Your task to perform on an android device: set an alarm Image 0: 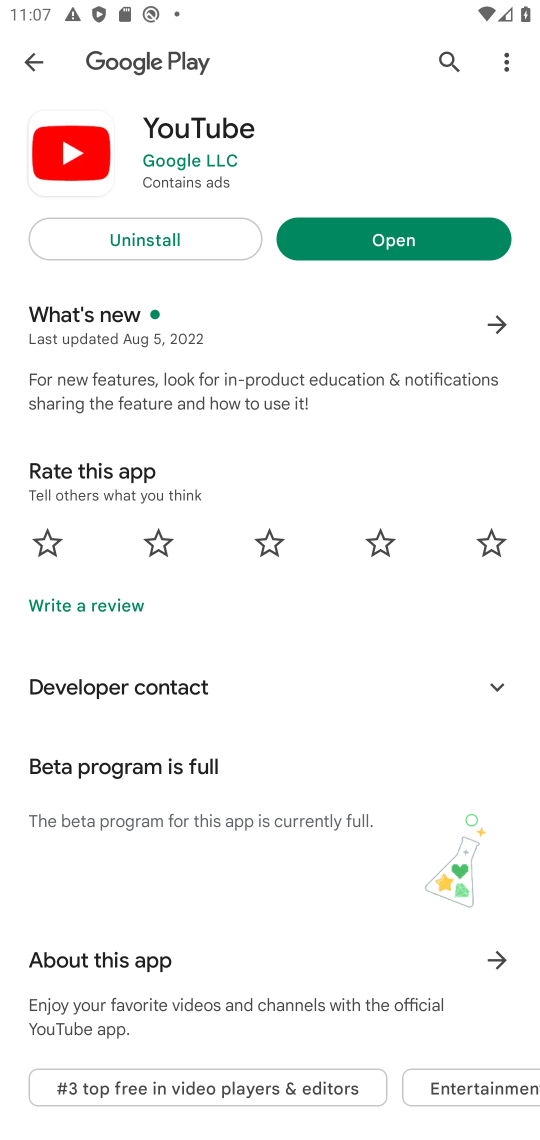
Step 0: press home button
Your task to perform on an android device: set an alarm Image 1: 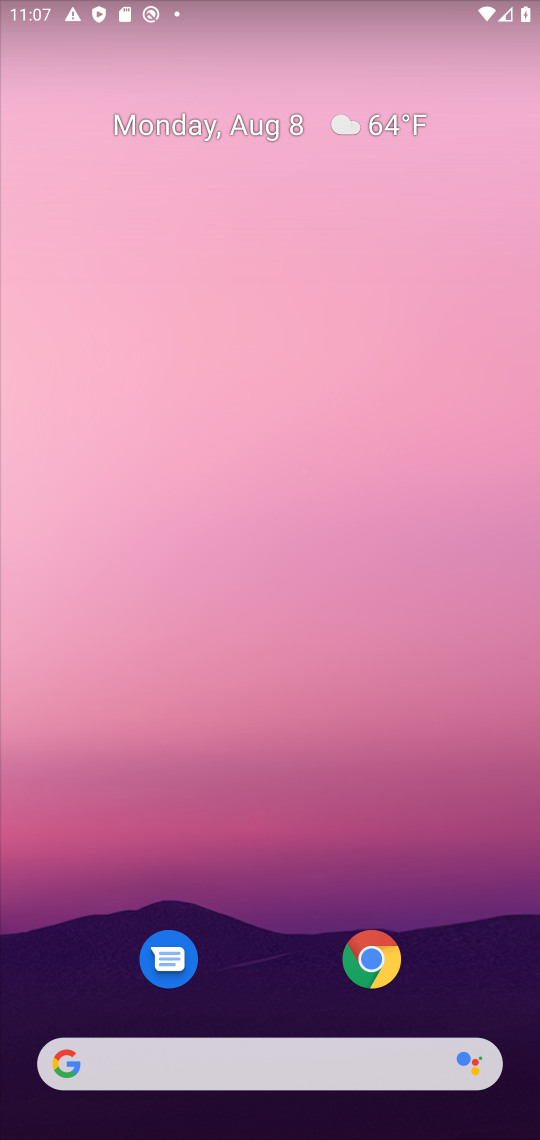
Step 1: drag from (465, 959) to (399, 662)
Your task to perform on an android device: set an alarm Image 2: 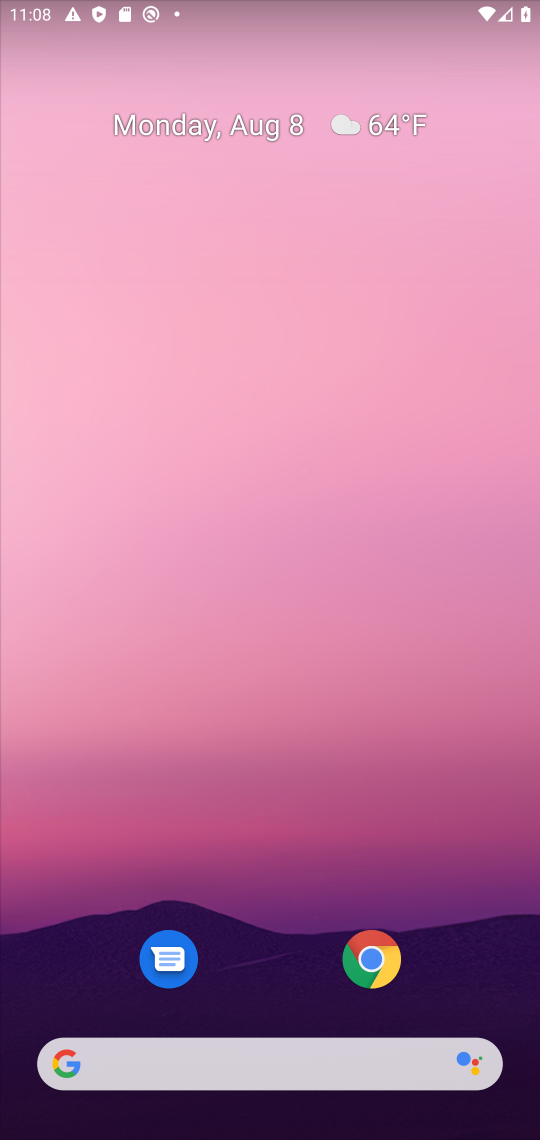
Step 2: drag from (466, 972) to (288, 251)
Your task to perform on an android device: set an alarm Image 3: 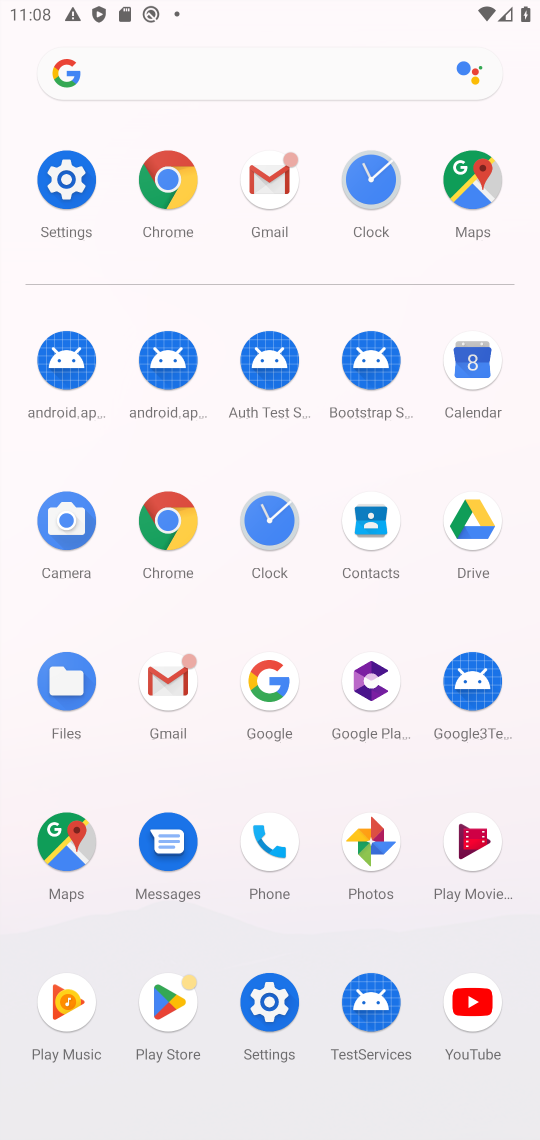
Step 3: click (290, 506)
Your task to perform on an android device: set an alarm Image 4: 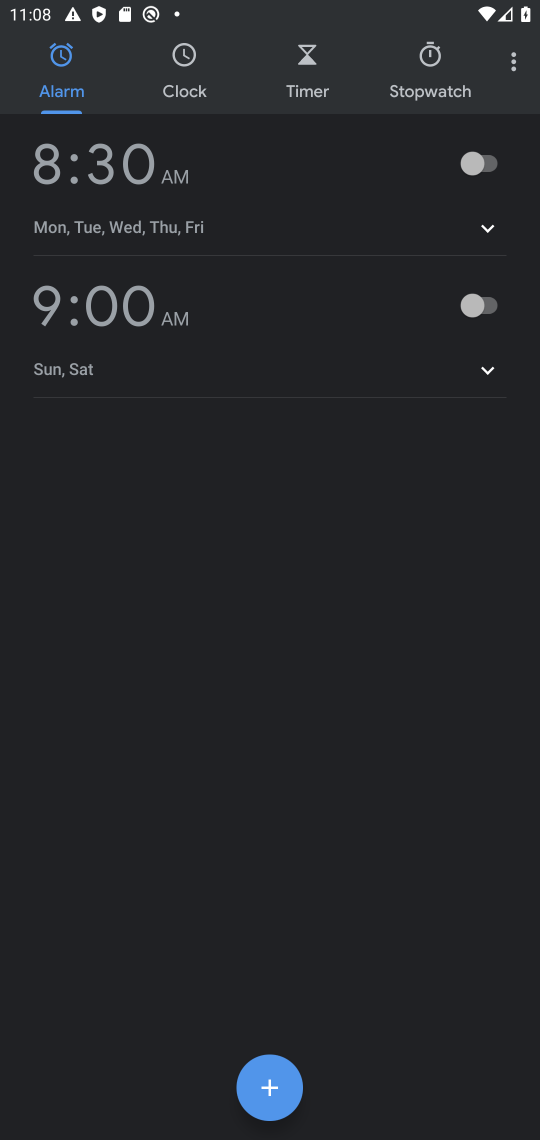
Step 4: click (262, 1094)
Your task to perform on an android device: set an alarm Image 5: 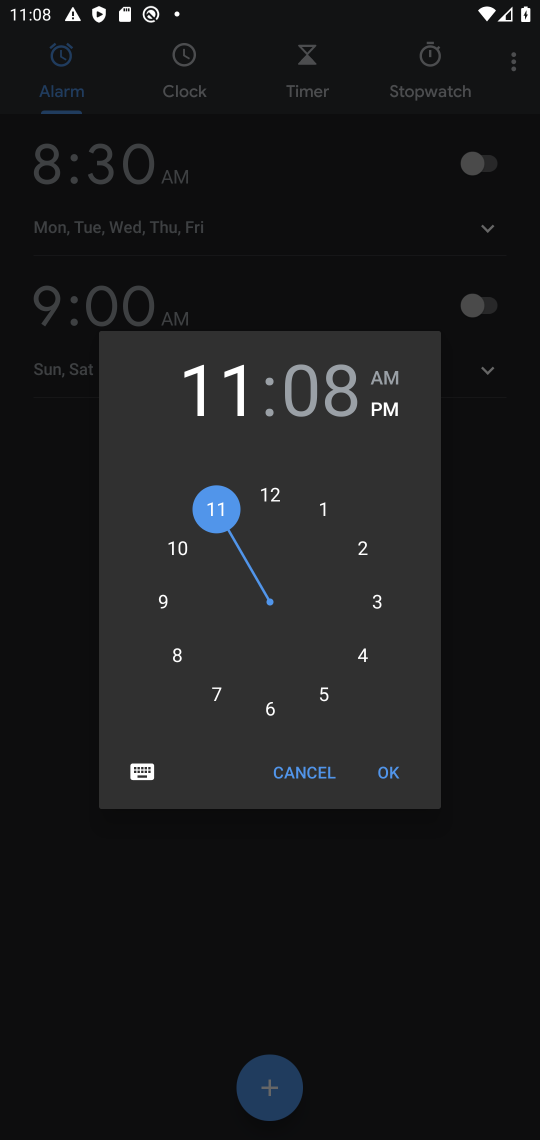
Step 5: click (385, 772)
Your task to perform on an android device: set an alarm Image 6: 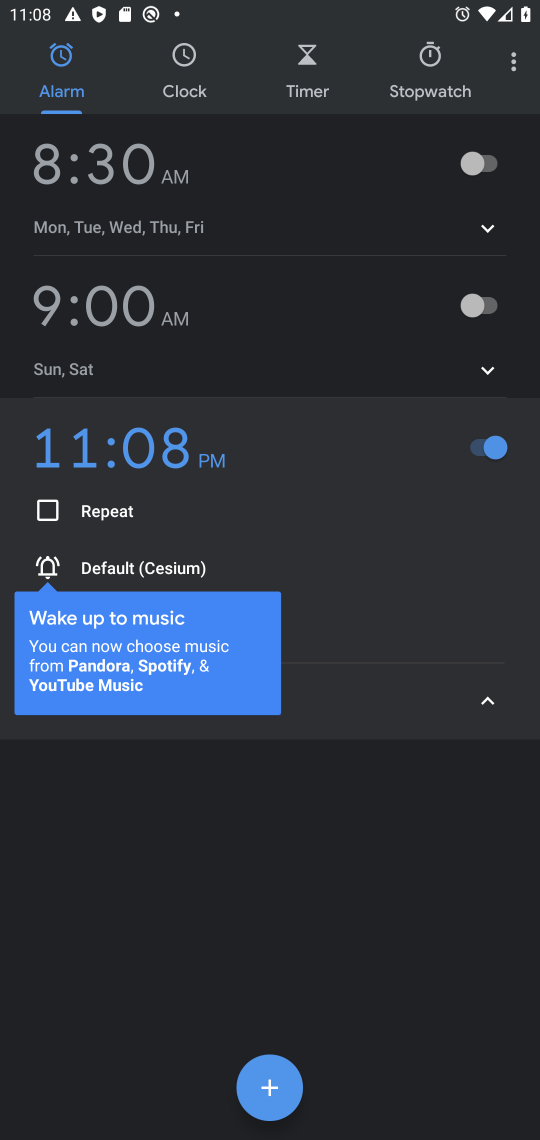
Step 6: task complete